Your task to perform on an android device: check google app version Image 0: 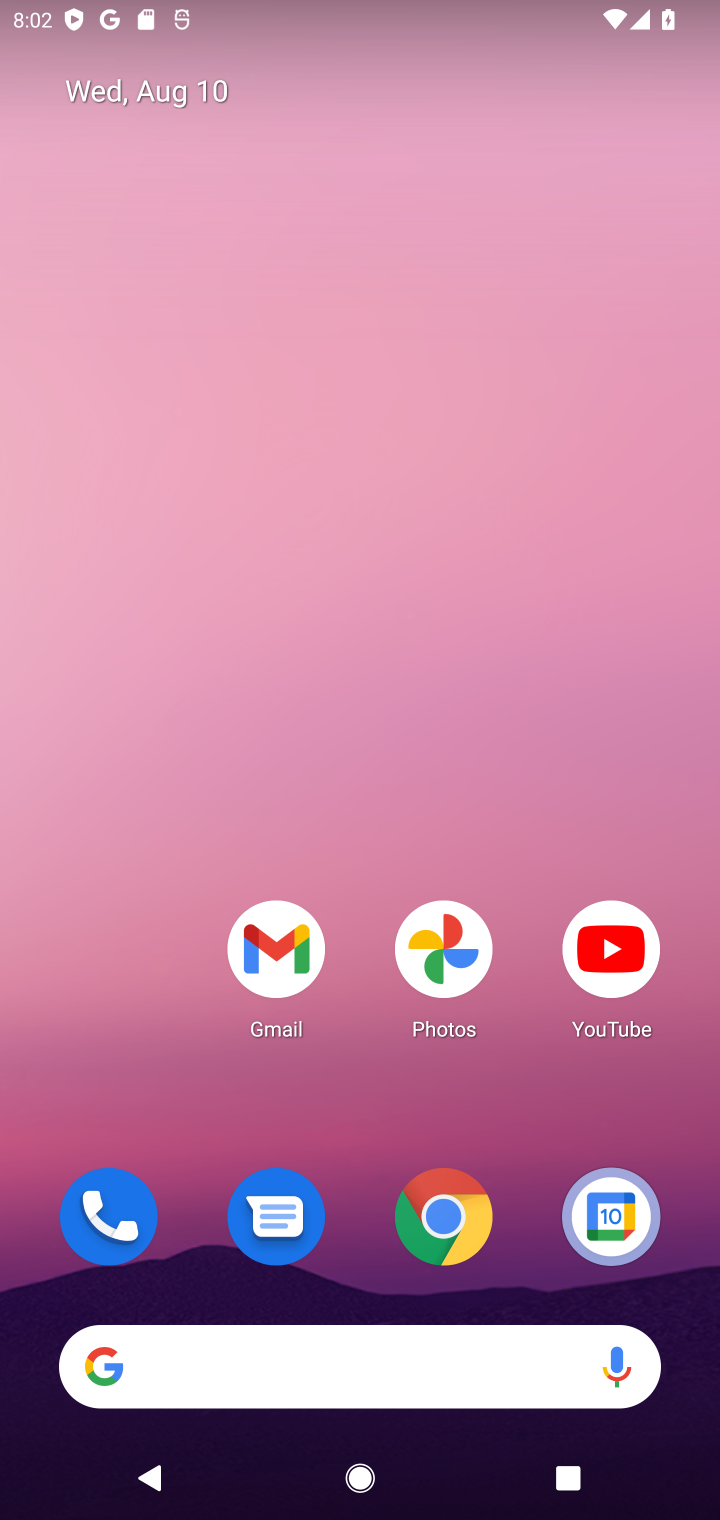
Step 0: drag from (262, 729) to (466, 205)
Your task to perform on an android device: check google app version Image 1: 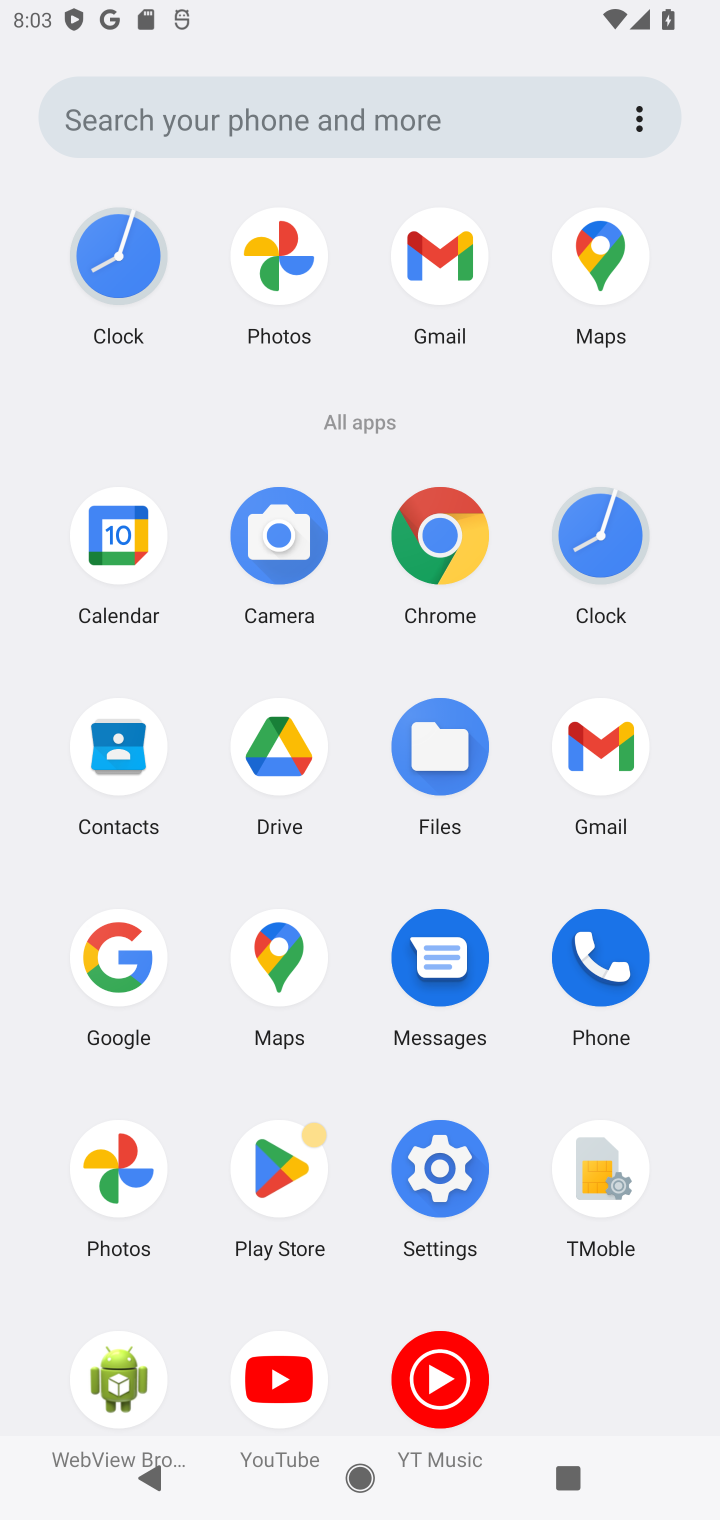
Step 1: drag from (135, 1073) to (461, 232)
Your task to perform on an android device: check google app version Image 2: 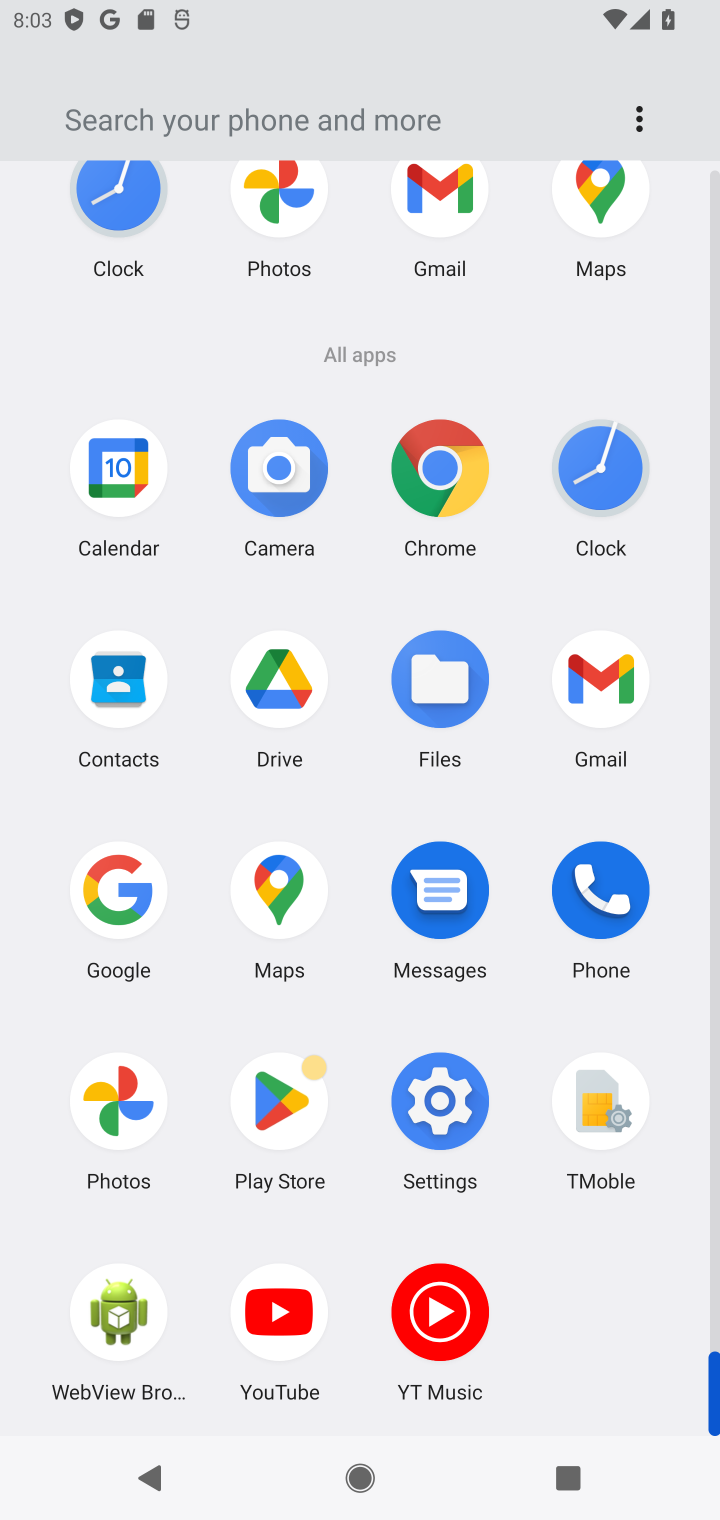
Step 2: click (115, 896)
Your task to perform on an android device: check google app version Image 3: 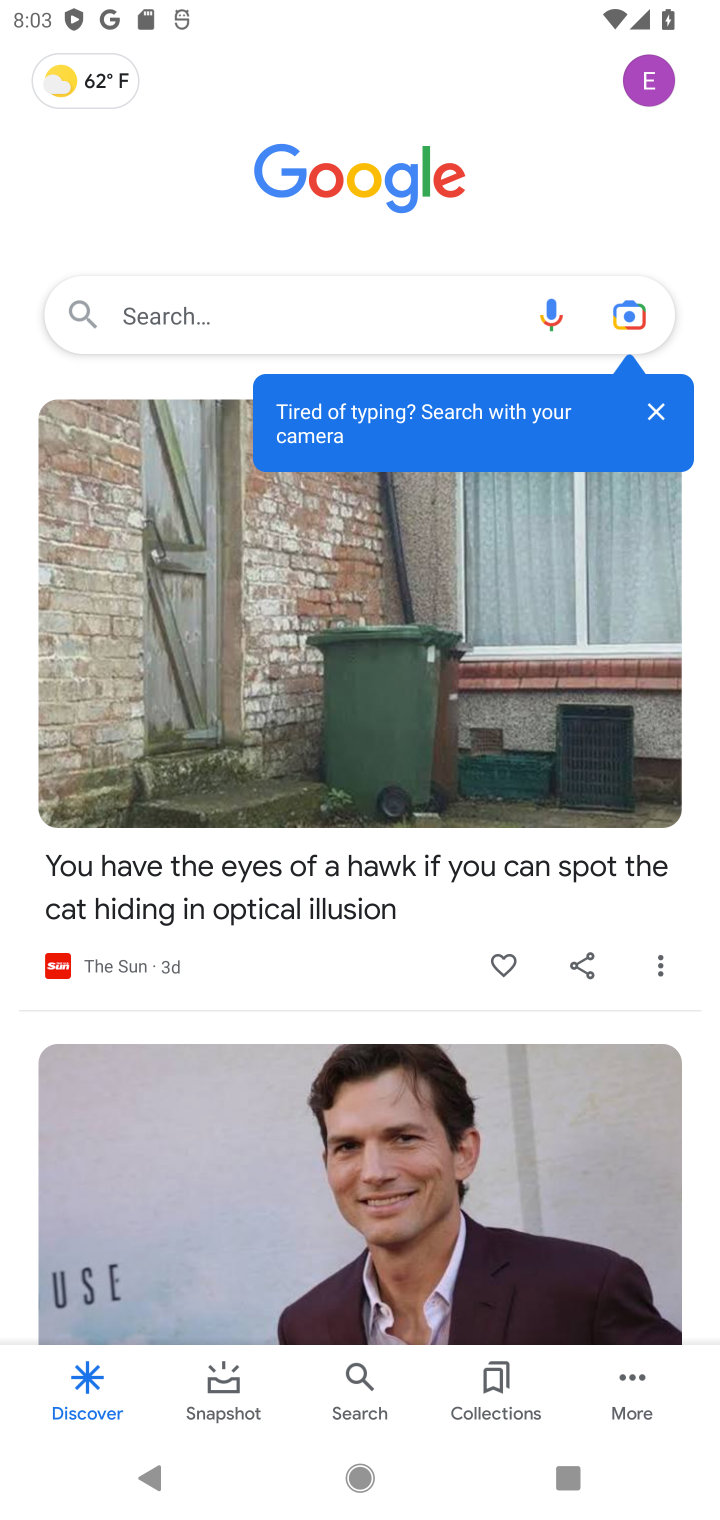
Step 3: click (656, 72)
Your task to perform on an android device: check google app version Image 4: 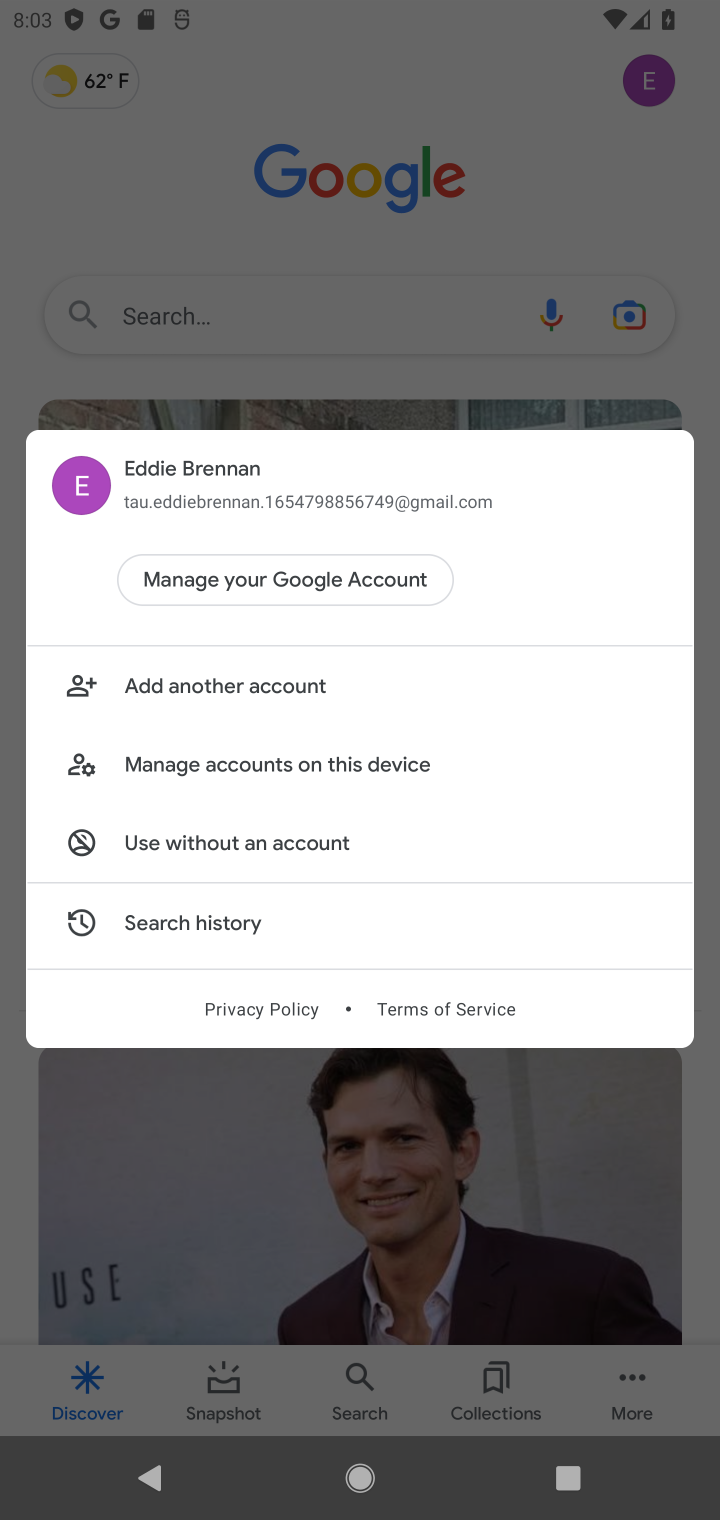
Step 4: click (259, 985)
Your task to perform on an android device: check google app version Image 5: 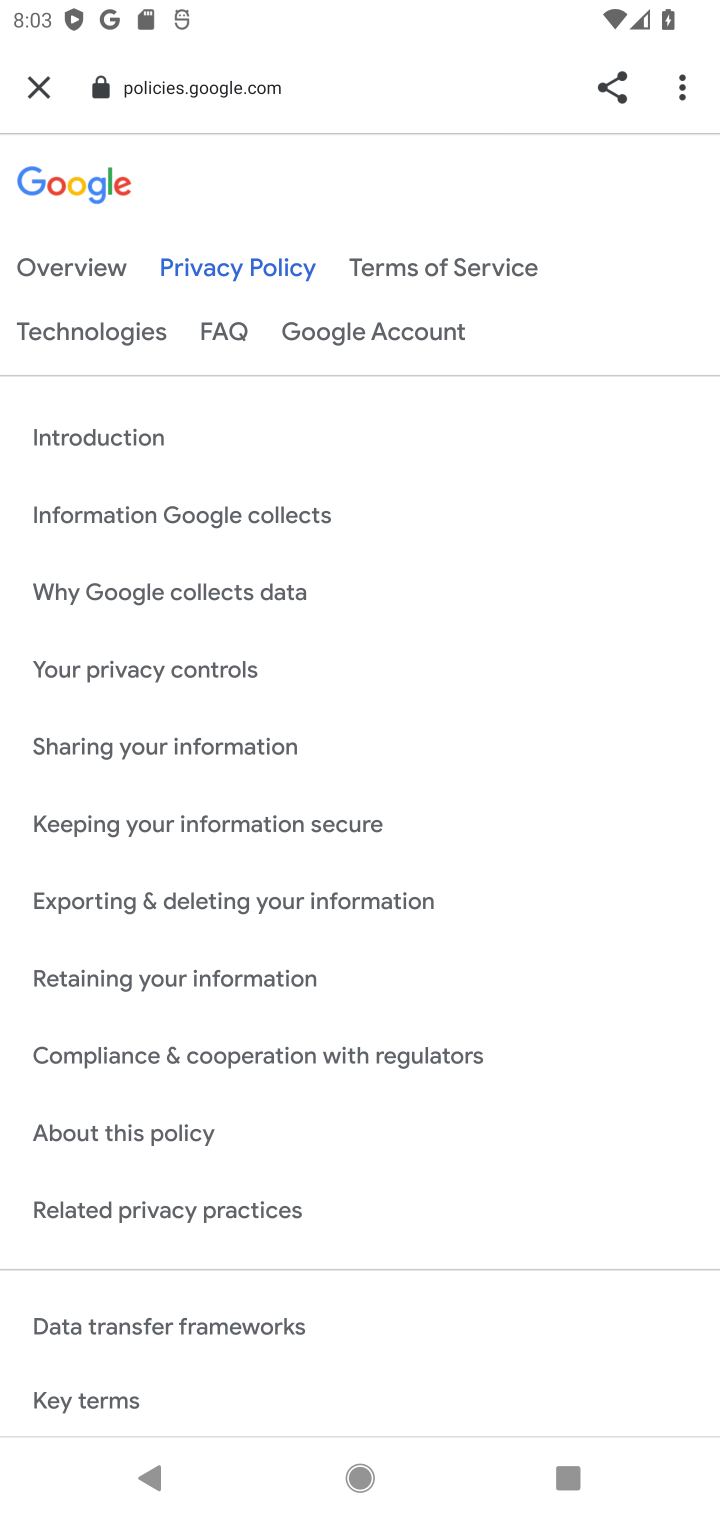
Step 5: task complete